Your task to perform on an android device: Open calendar and show me the third week of next month Image 0: 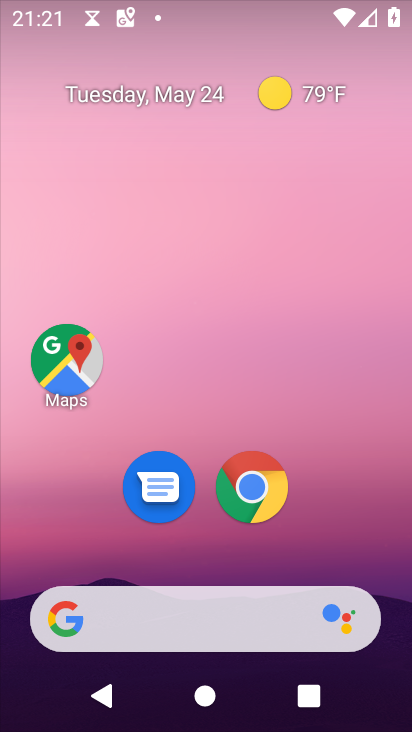
Step 0: press home button
Your task to perform on an android device: Open calendar and show me the third week of next month Image 1: 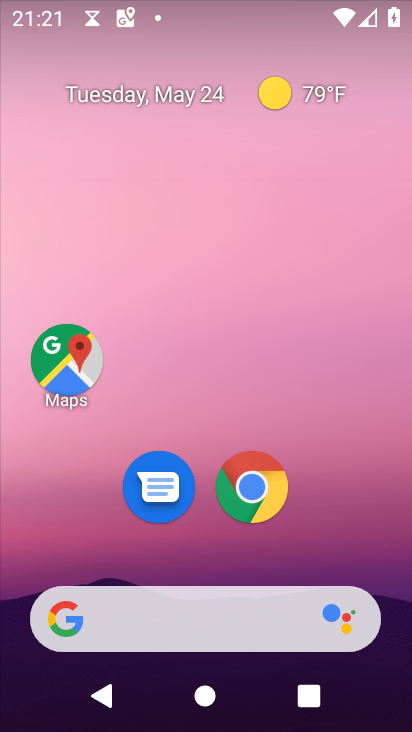
Step 1: drag from (327, 537) to (316, 64)
Your task to perform on an android device: Open calendar and show me the third week of next month Image 2: 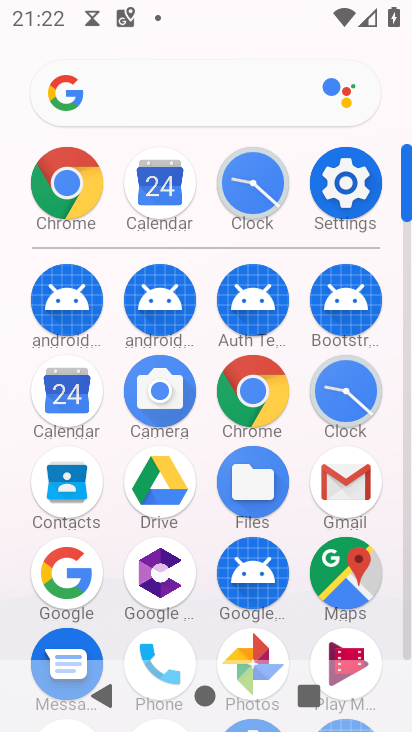
Step 2: click (54, 399)
Your task to perform on an android device: Open calendar and show me the third week of next month Image 3: 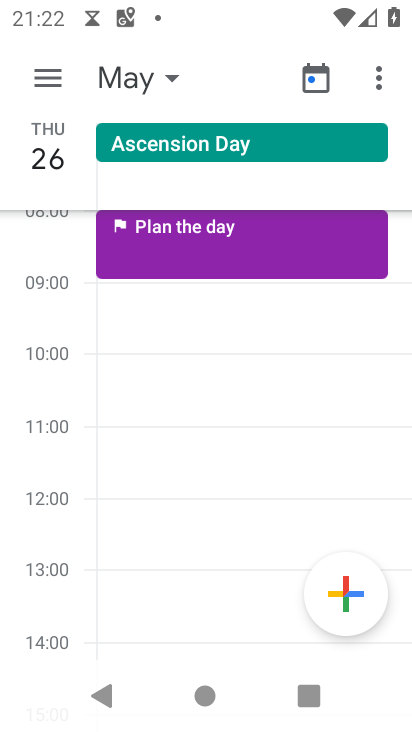
Step 3: click (170, 85)
Your task to perform on an android device: Open calendar and show me the third week of next month Image 4: 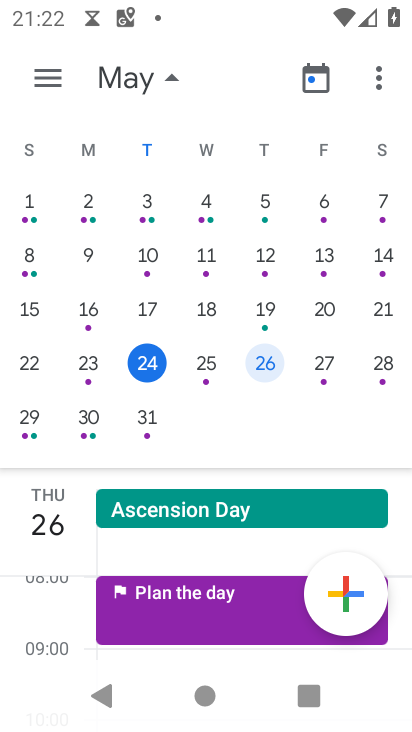
Step 4: drag from (362, 331) to (9, 235)
Your task to perform on an android device: Open calendar and show me the third week of next month Image 5: 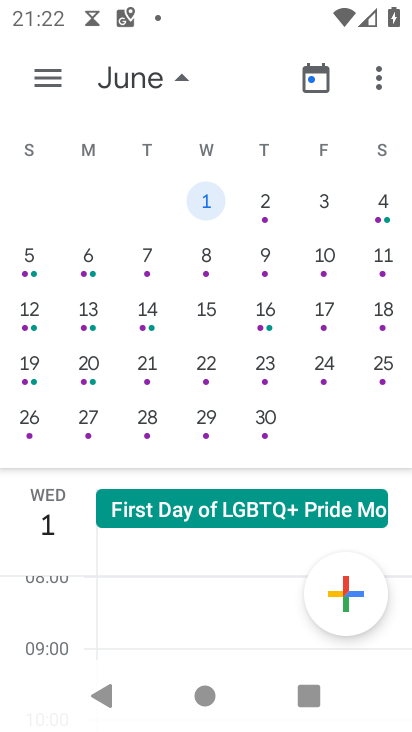
Step 5: click (206, 310)
Your task to perform on an android device: Open calendar and show me the third week of next month Image 6: 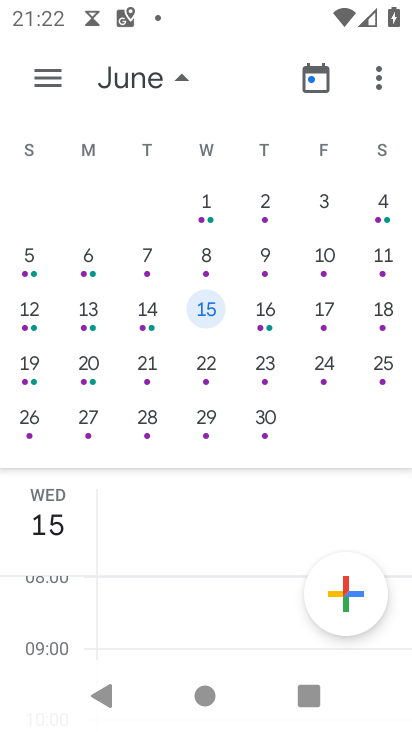
Step 6: click (208, 360)
Your task to perform on an android device: Open calendar and show me the third week of next month Image 7: 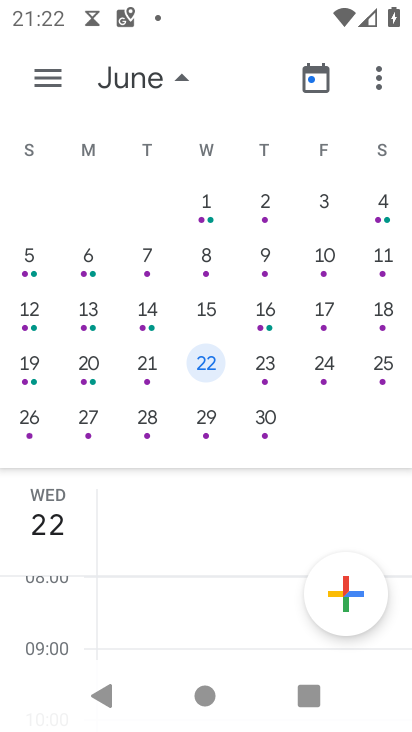
Step 7: click (207, 305)
Your task to perform on an android device: Open calendar and show me the third week of next month Image 8: 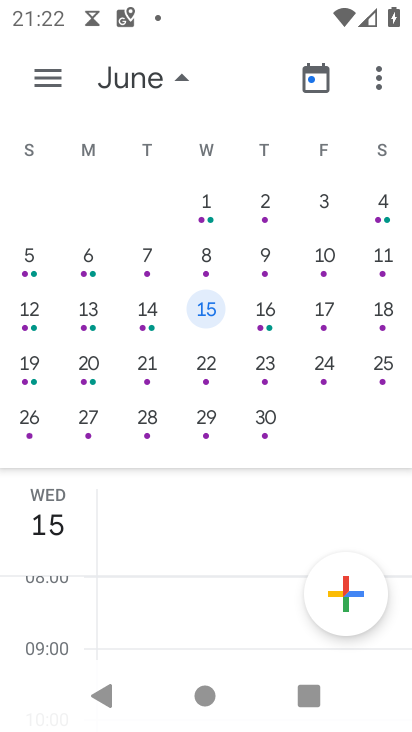
Step 8: task complete